Your task to perform on an android device: Go to location settings Image 0: 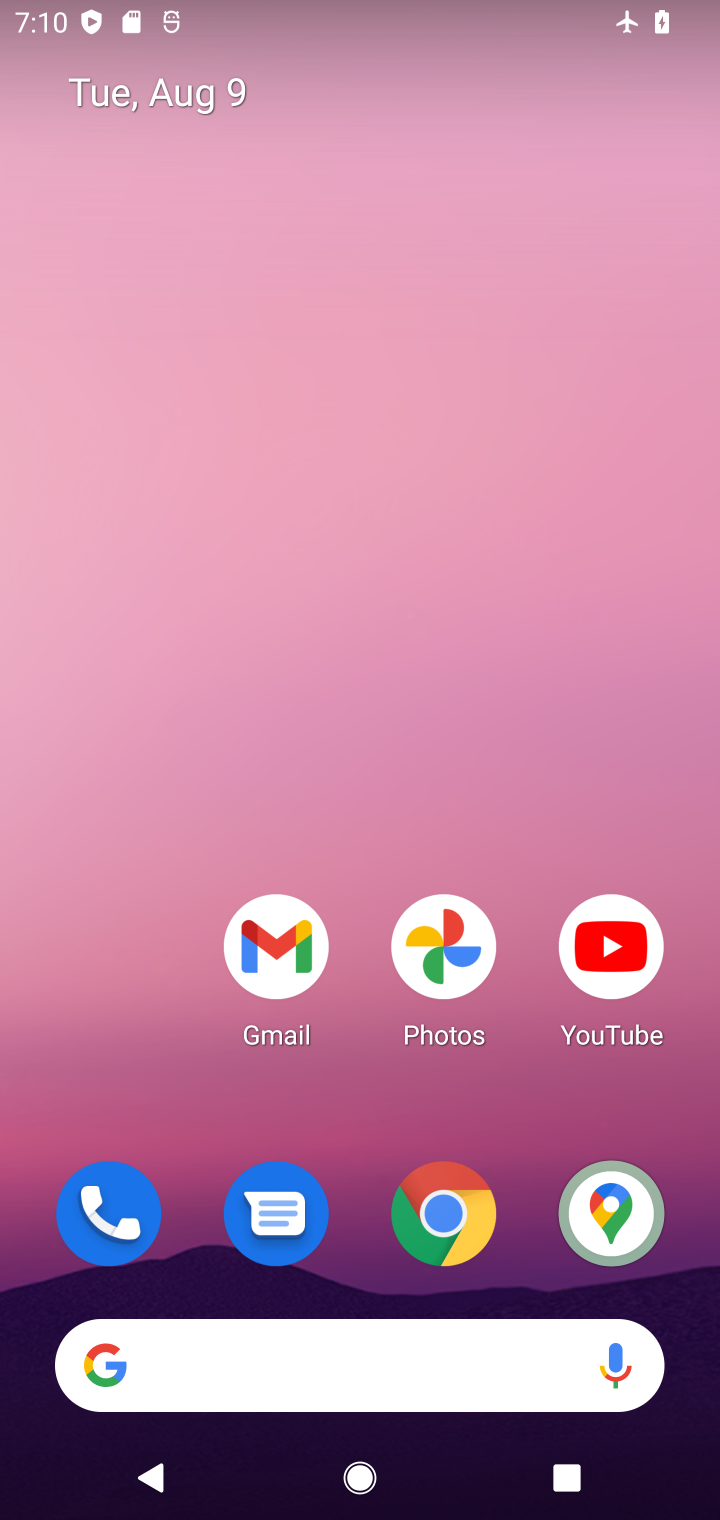
Step 0: drag from (368, 1271) to (252, 223)
Your task to perform on an android device: Go to location settings Image 1: 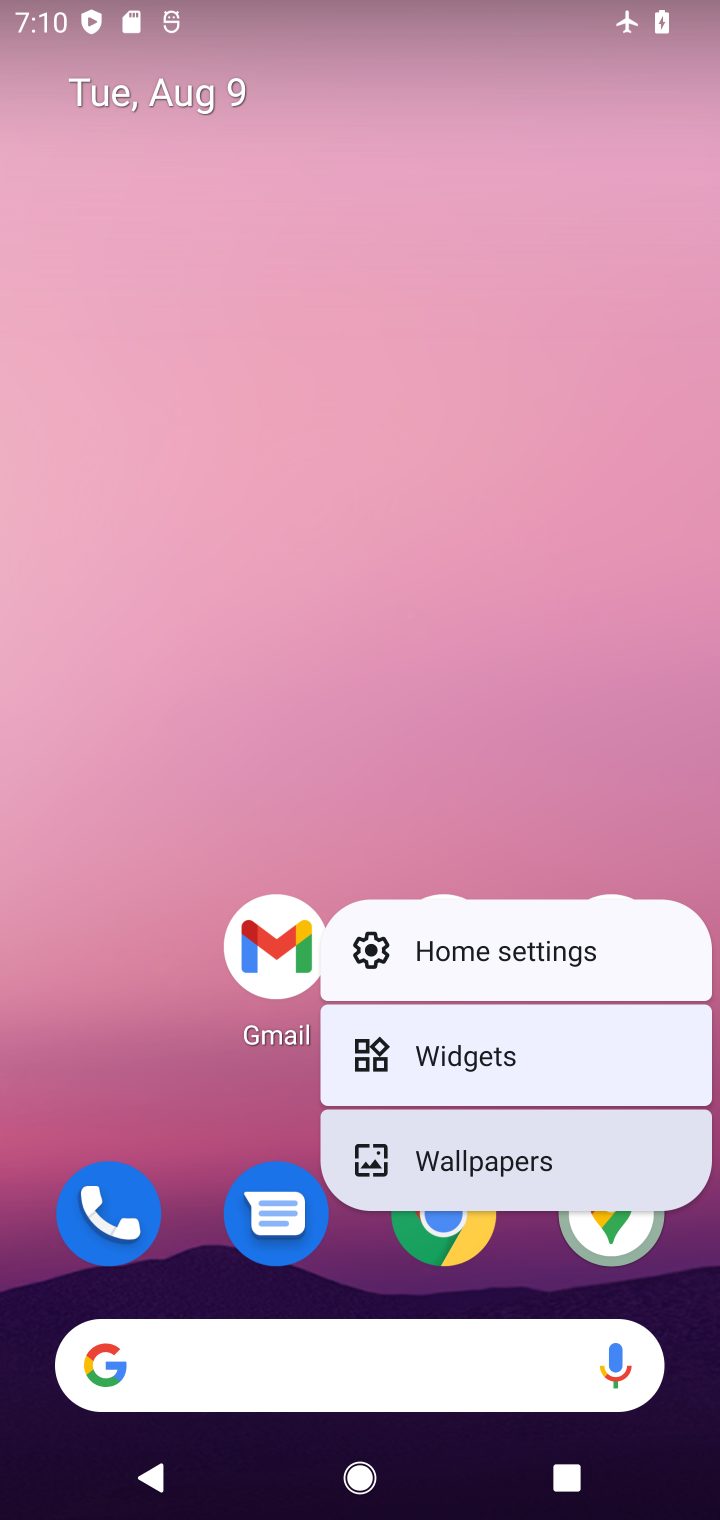
Step 1: click (334, 469)
Your task to perform on an android device: Go to location settings Image 2: 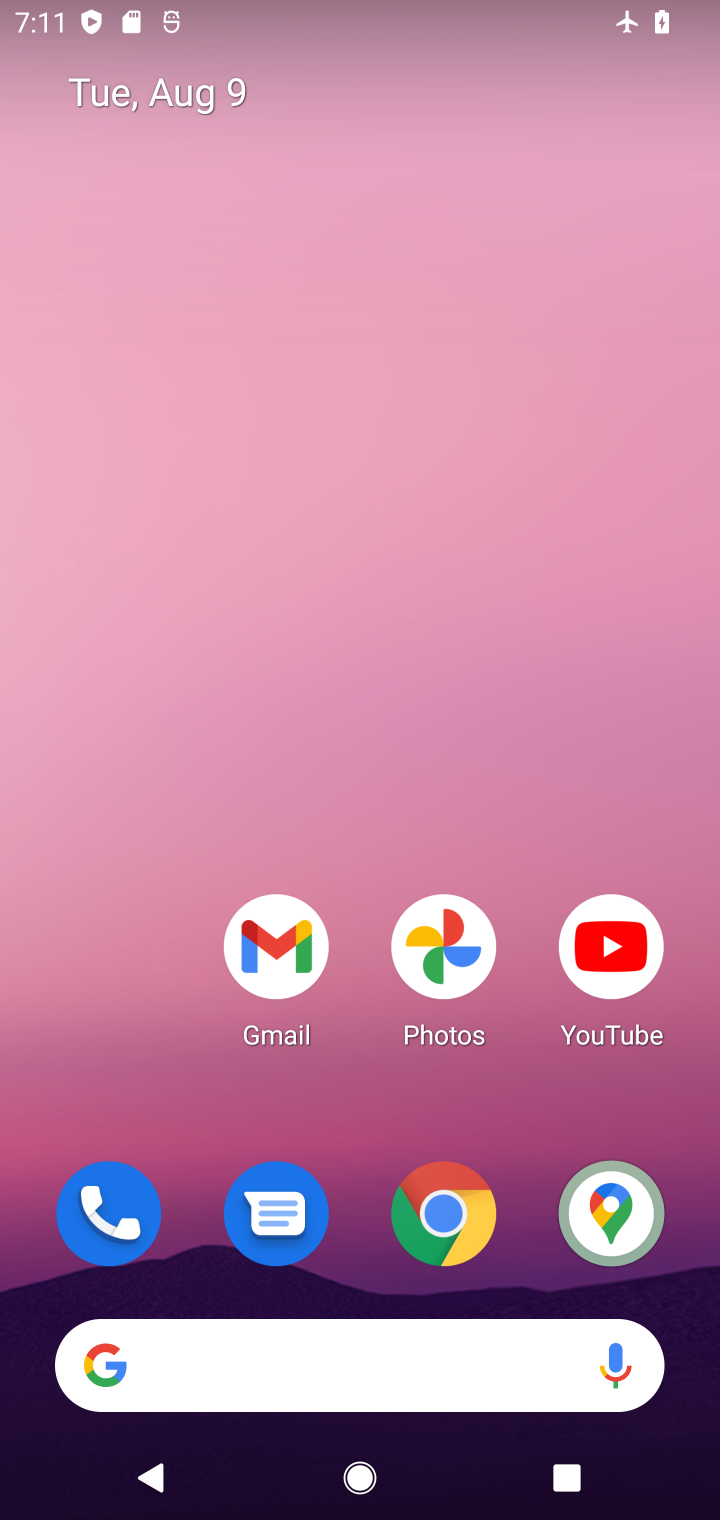
Step 2: drag from (400, 1289) to (346, 144)
Your task to perform on an android device: Go to location settings Image 3: 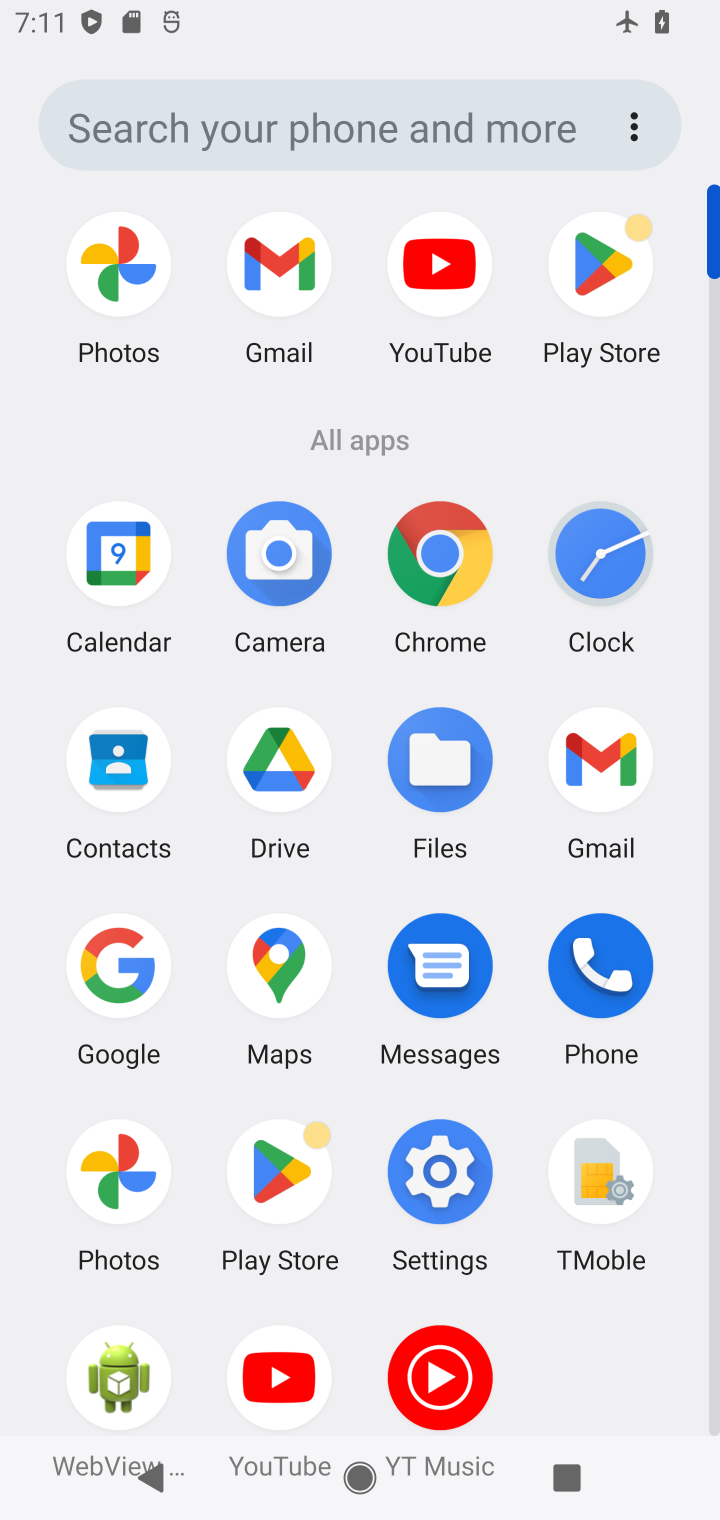
Step 3: click (421, 1210)
Your task to perform on an android device: Go to location settings Image 4: 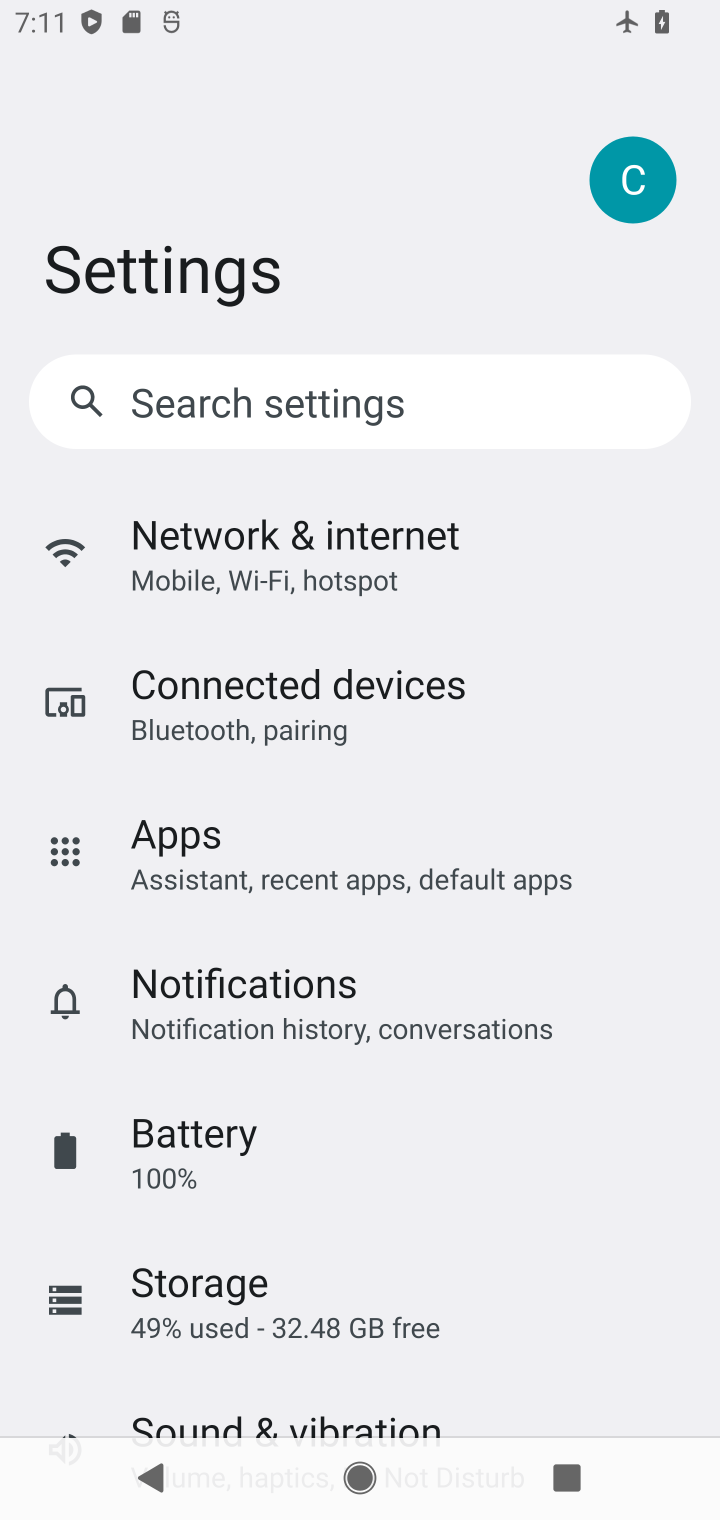
Step 4: drag from (421, 1210) to (552, 494)
Your task to perform on an android device: Go to location settings Image 5: 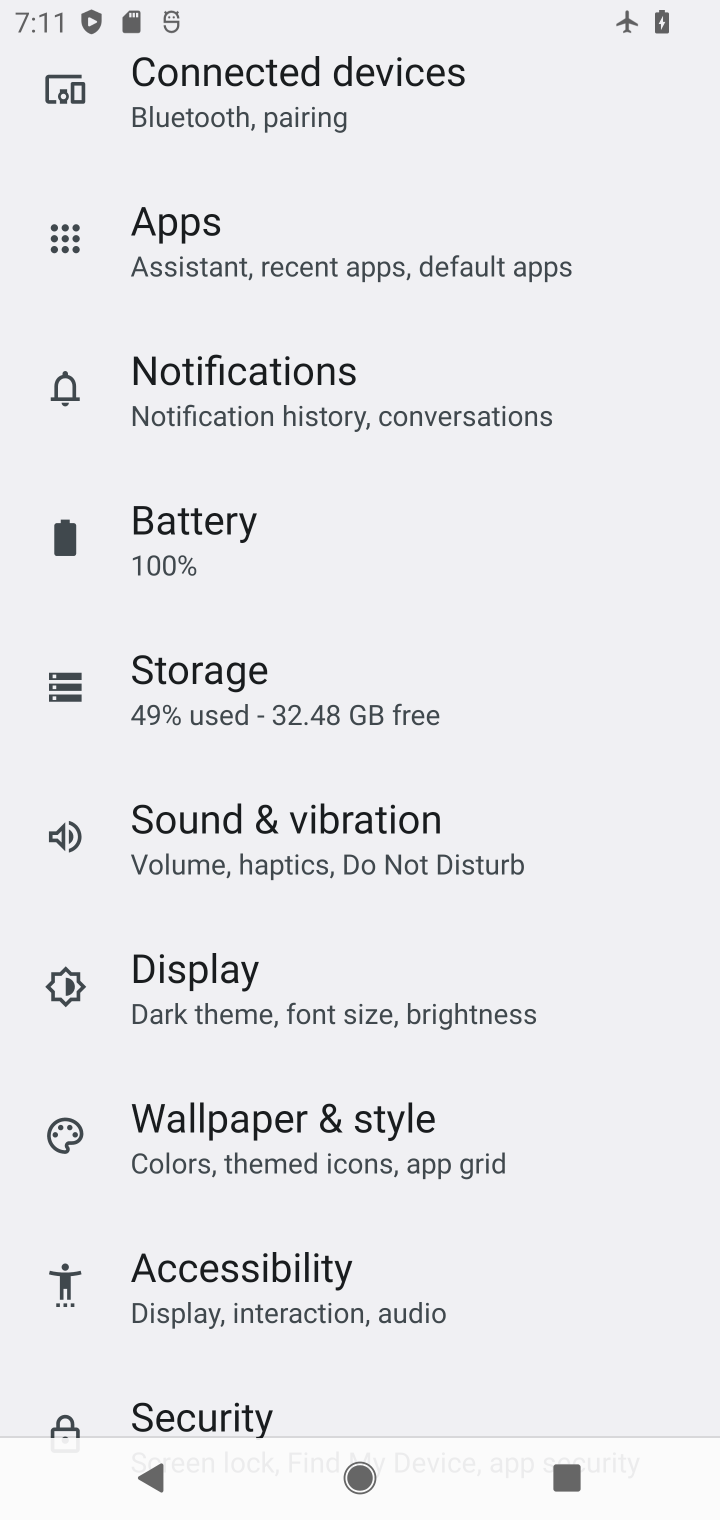
Step 5: drag from (158, 1355) to (367, 360)
Your task to perform on an android device: Go to location settings Image 6: 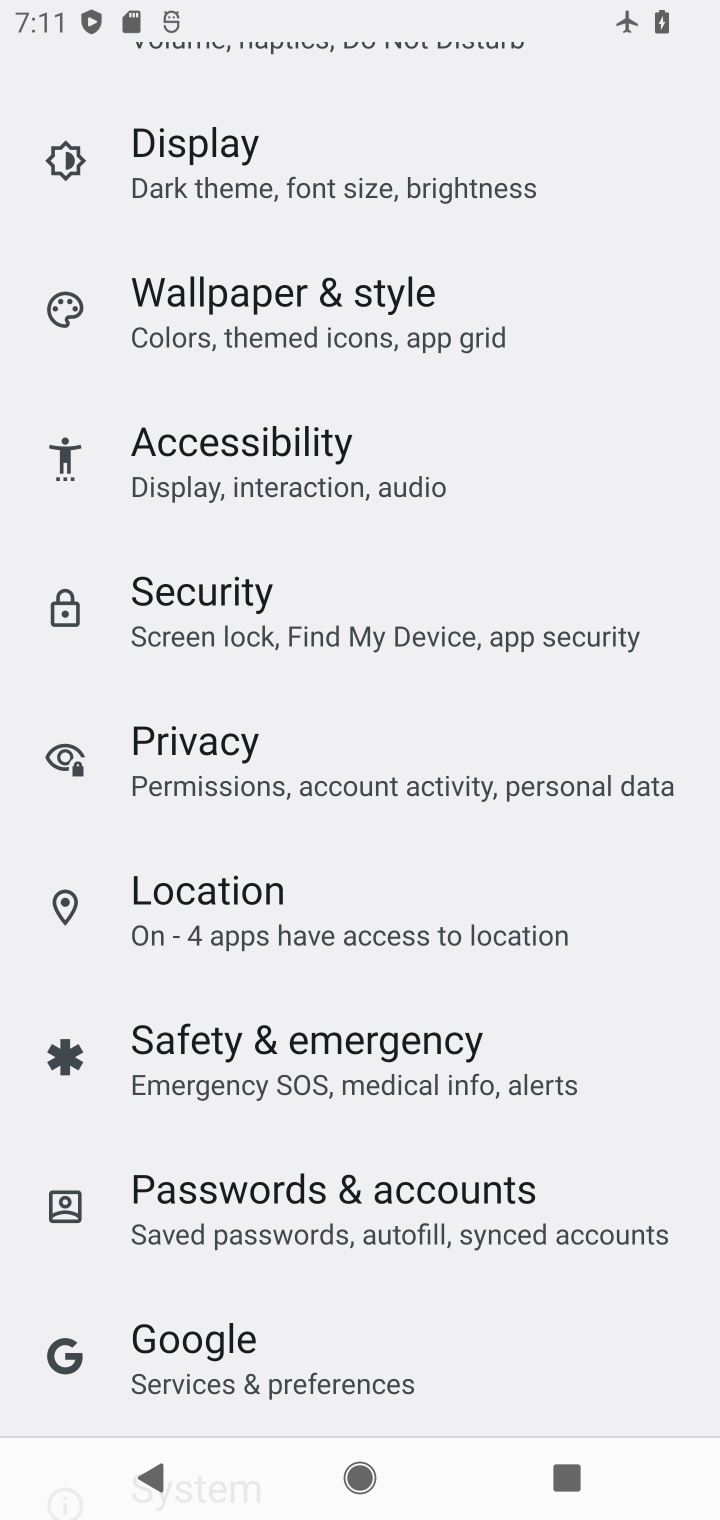
Step 6: click (169, 946)
Your task to perform on an android device: Go to location settings Image 7: 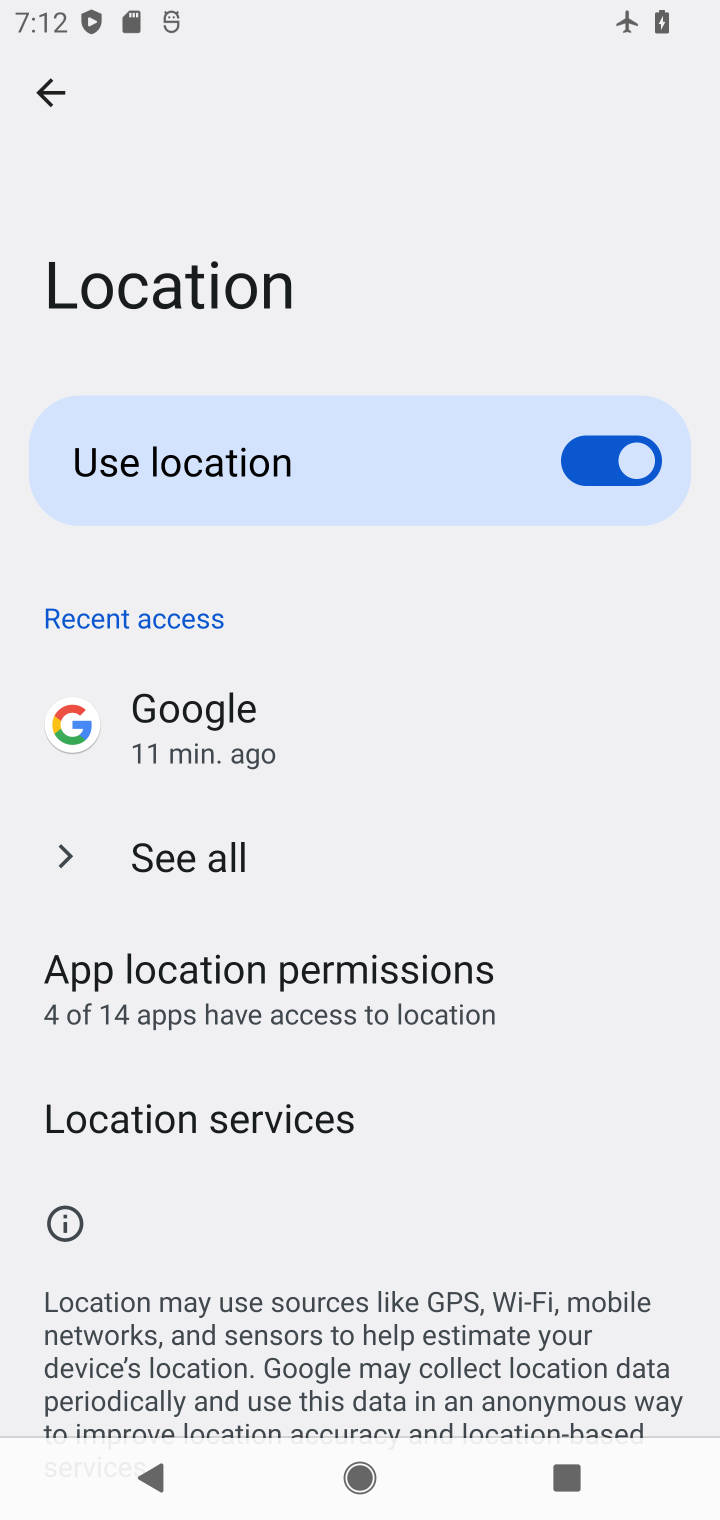
Step 7: task complete